Your task to perform on an android device: Is it going to rain this weekend? Image 0: 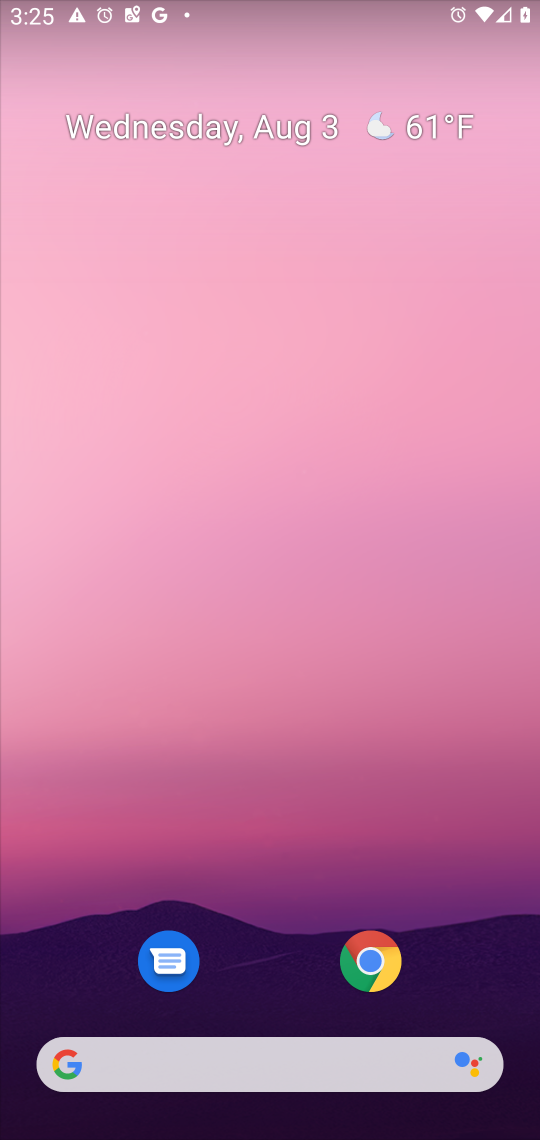
Step 0: drag from (287, 974) to (268, 37)
Your task to perform on an android device: Is it going to rain this weekend? Image 1: 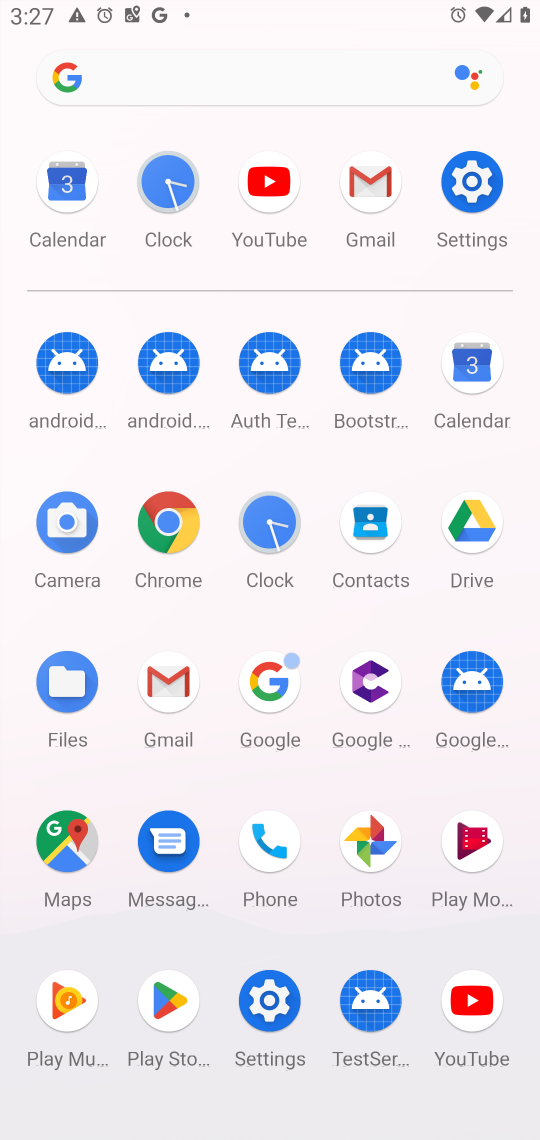
Step 1: click (175, 81)
Your task to perform on an android device: Is it going to rain this weekend? Image 2: 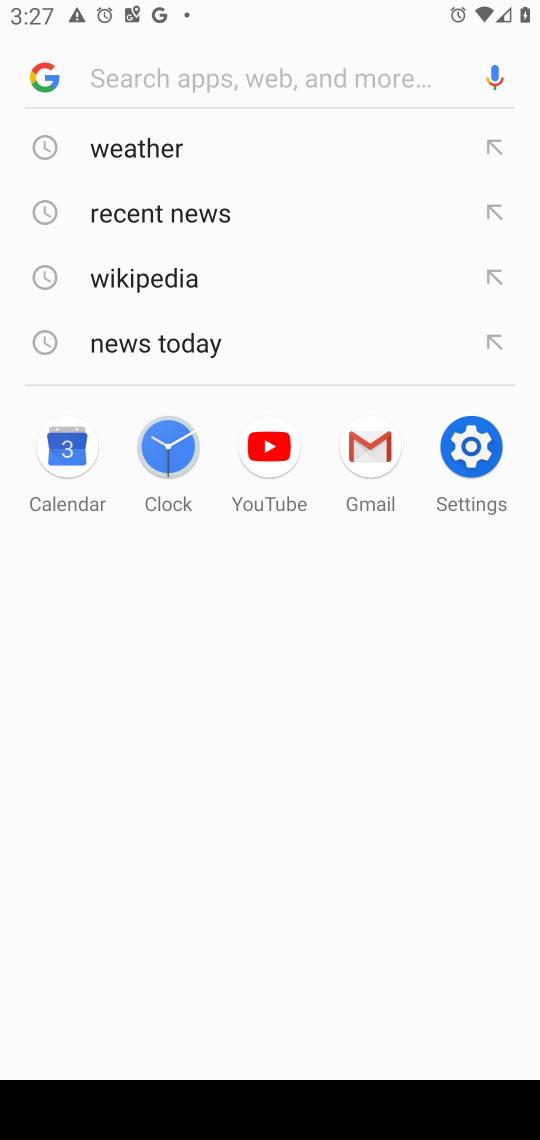
Step 2: click (149, 157)
Your task to perform on an android device: Is it going to rain this weekend? Image 3: 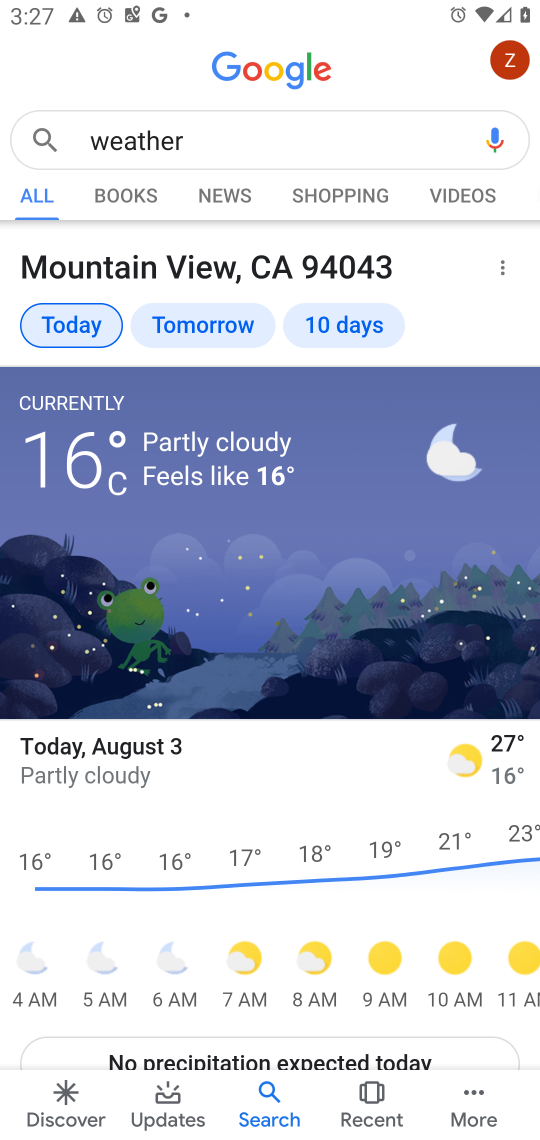
Step 3: click (319, 264)
Your task to perform on an android device: Is it going to rain this weekend? Image 4: 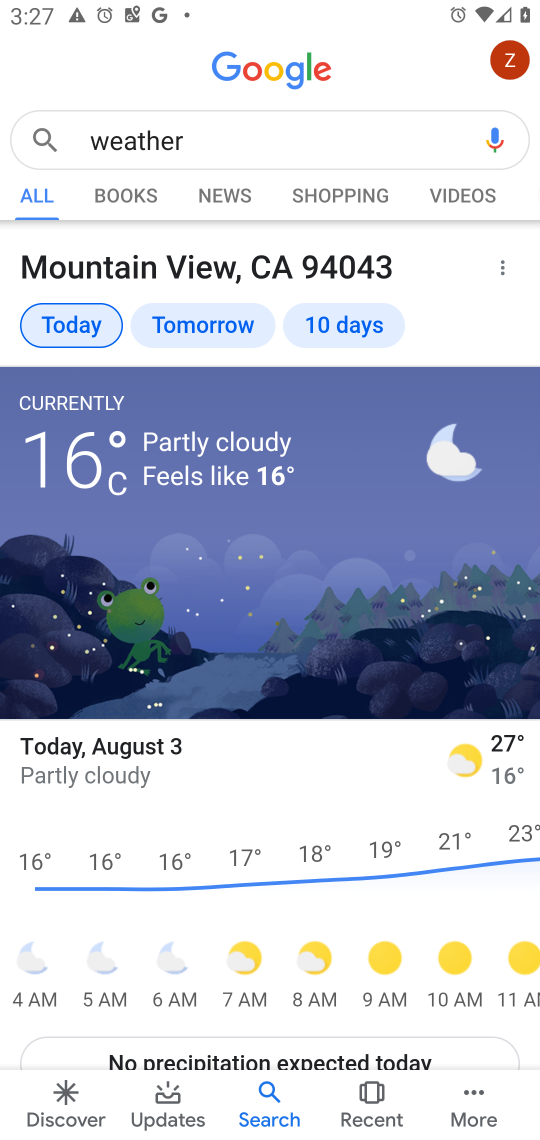
Step 4: click (354, 315)
Your task to perform on an android device: Is it going to rain this weekend? Image 5: 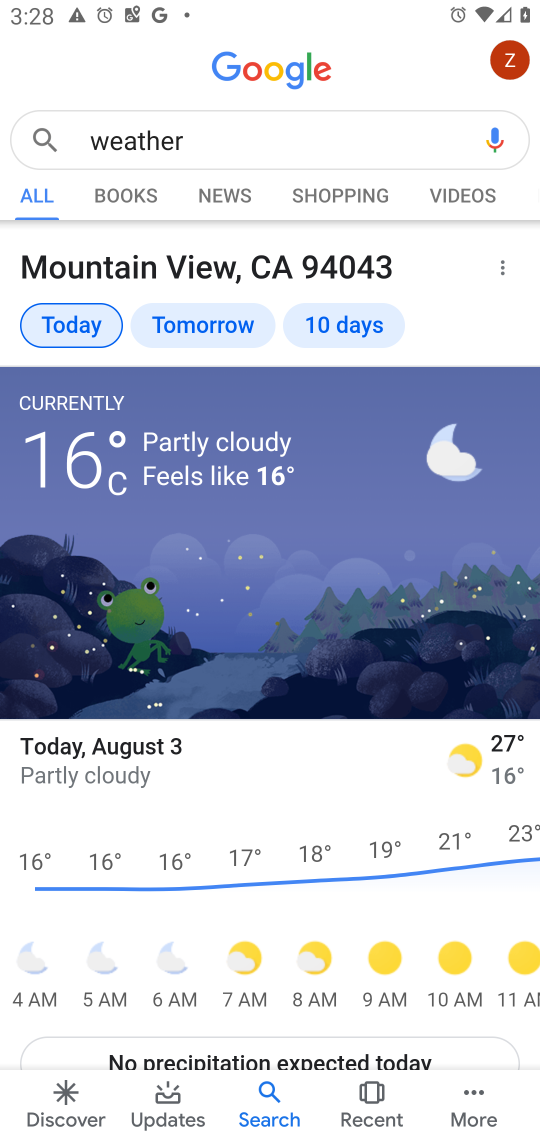
Step 5: task complete